Your task to perform on an android device: Open Amazon Image 0: 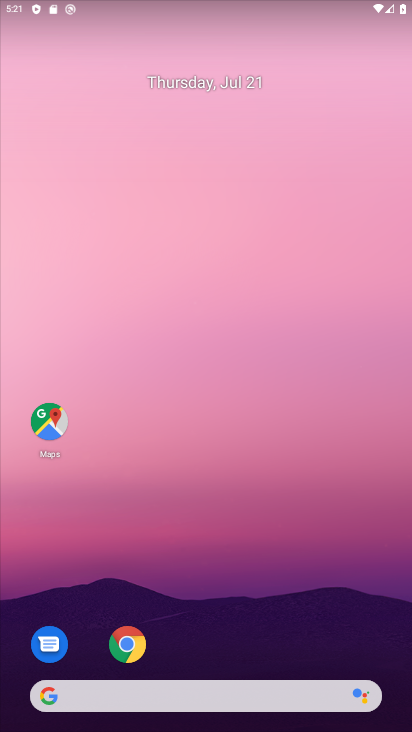
Step 0: click (132, 640)
Your task to perform on an android device: Open Amazon Image 1: 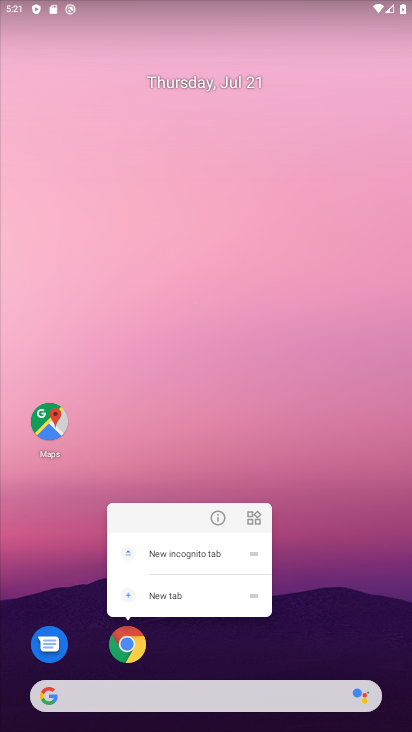
Step 1: click (133, 650)
Your task to perform on an android device: Open Amazon Image 2: 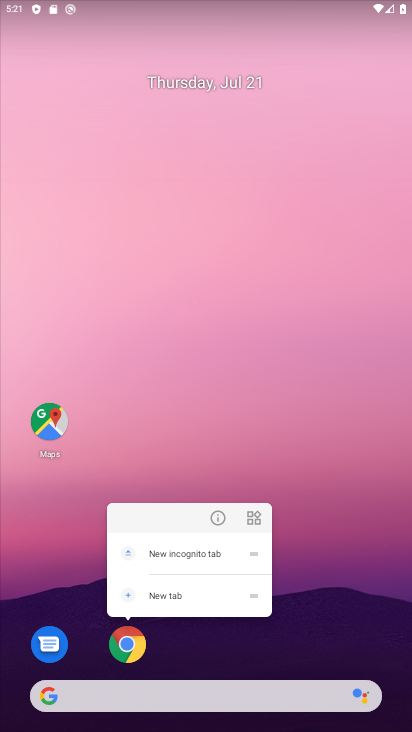
Step 2: click (130, 652)
Your task to perform on an android device: Open Amazon Image 3: 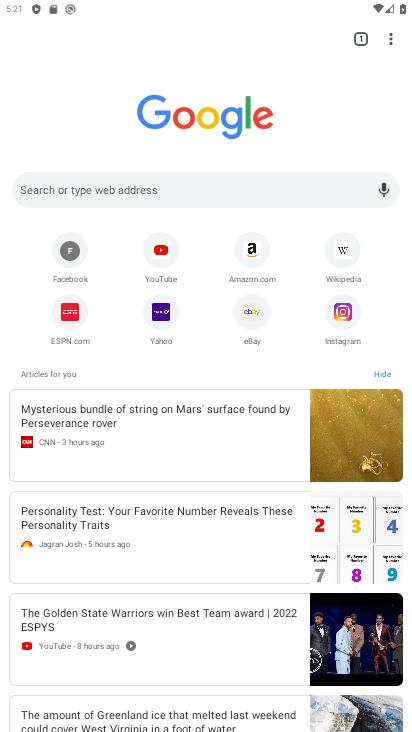
Step 3: click (389, 42)
Your task to perform on an android device: Open Amazon Image 4: 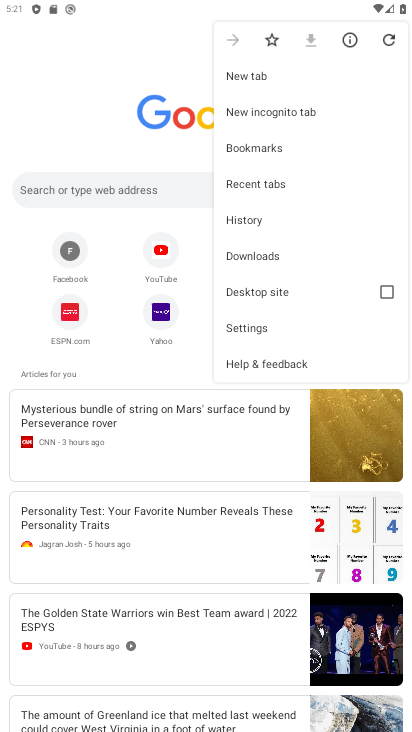
Step 4: click (68, 129)
Your task to perform on an android device: Open Amazon Image 5: 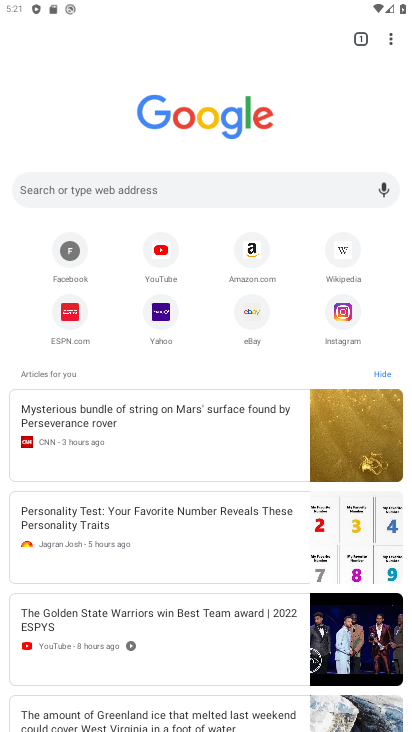
Step 5: click (257, 250)
Your task to perform on an android device: Open Amazon Image 6: 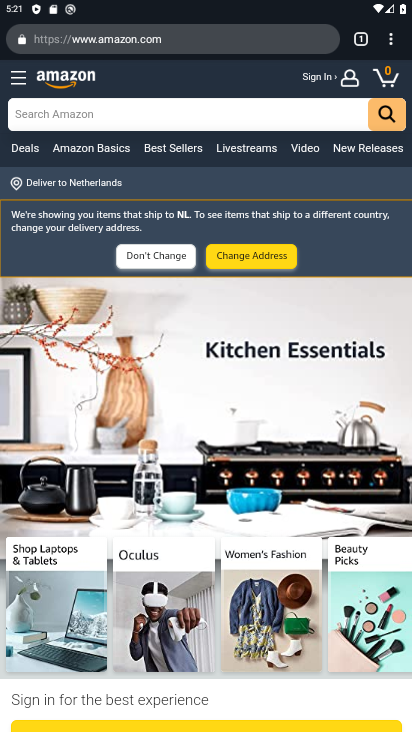
Step 6: task complete